Your task to perform on an android device: turn notification dots off Image 0: 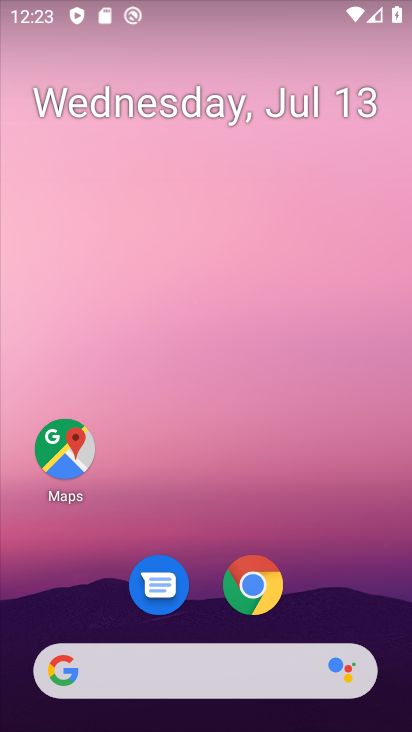
Step 0: drag from (316, 540) to (321, 62)
Your task to perform on an android device: turn notification dots off Image 1: 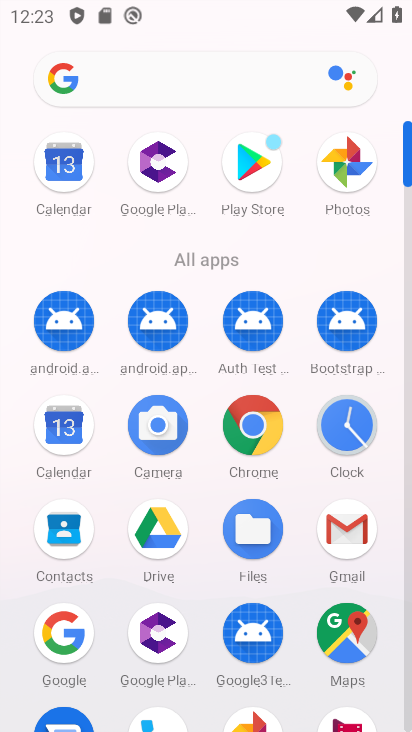
Step 1: drag from (197, 590) to (223, 124)
Your task to perform on an android device: turn notification dots off Image 2: 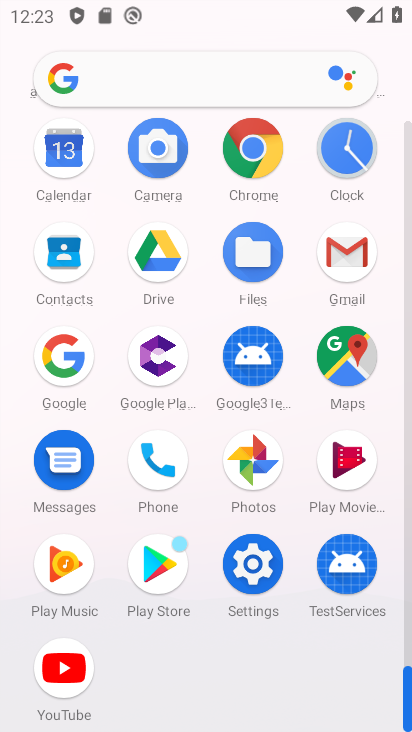
Step 2: click (250, 577)
Your task to perform on an android device: turn notification dots off Image 3: 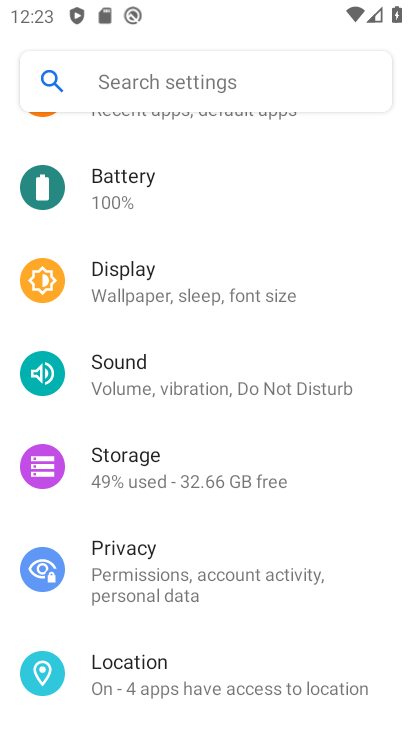
Step 3: drag from (242, 638) to (231, 291)
Your task to perform on an android device: turn notification dots off Image 4: 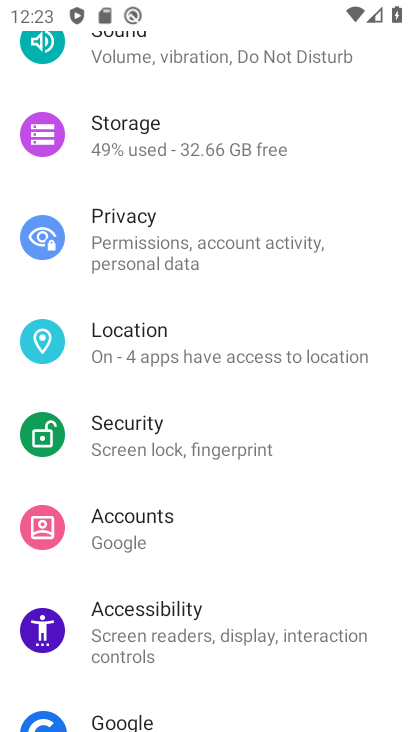
Step 4: drag from (236, 324) to (231, 715)
Your task to perform on an android device: turn notification dots off Image 5: 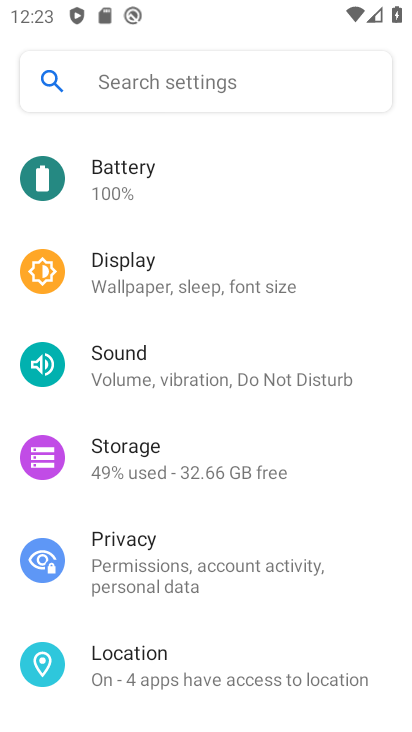
Step 5: drag from (224, 221) to (232, 613)
Your task to perform on an android device: turn notification dots off Image 6: 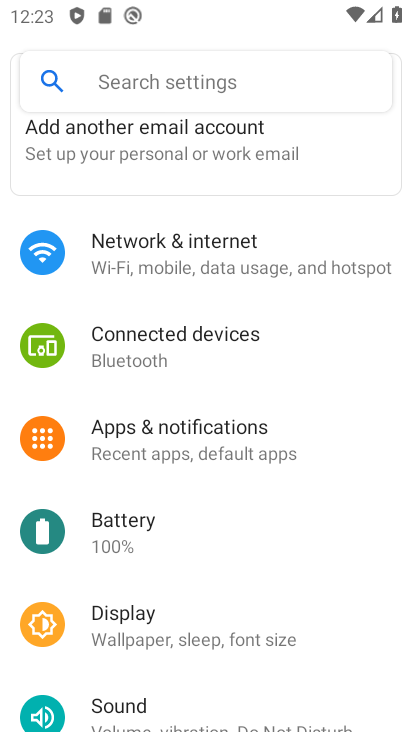
Step 6: click (236, 437)
Your task to perform on an android device: turn notification dots off Image 7: 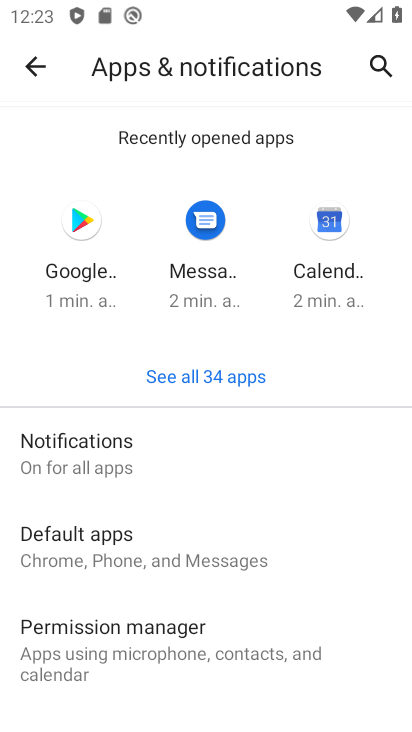
Step 7: click (103, 446)
Your task to perform on an android device: turn notification dots off Image 8: 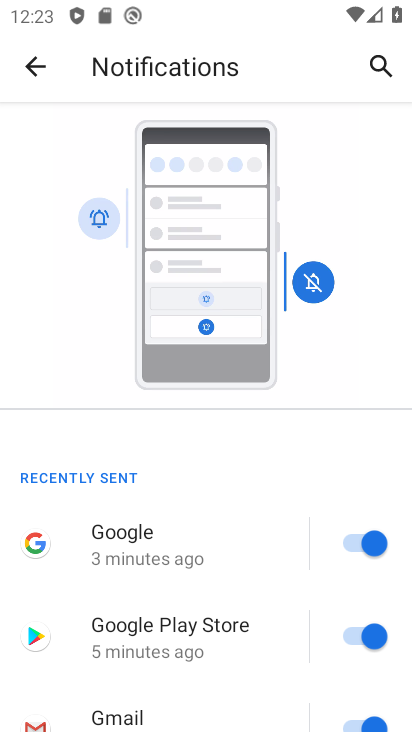
Step 8: drag from (209, 672) to (236, 170)
Your task to perform on an android device: turn notification dots off Image 9: 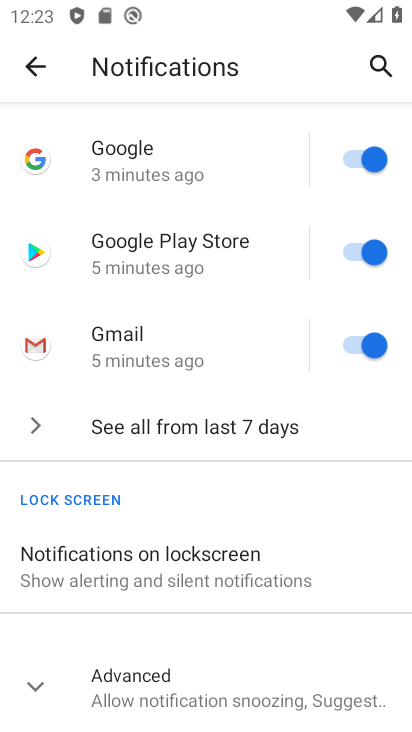
Step 9: click (37, 685)
Your task to perform on an android device: turn notification dots off Image 10: 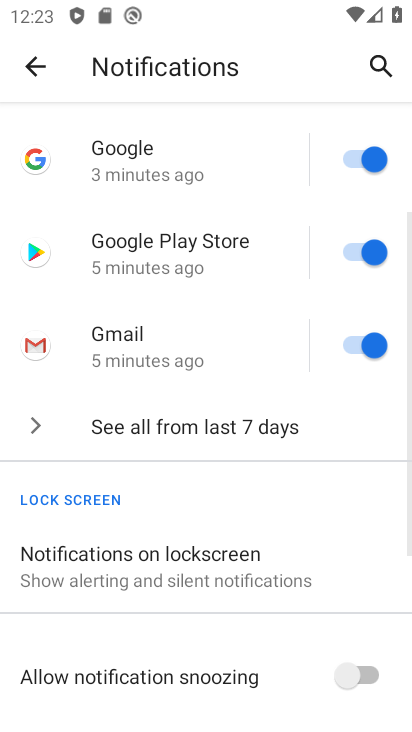
Step 10: drag from (272, 532) to (298, 66)
Your task to perform on an android device: turn notification dots off Image 11: 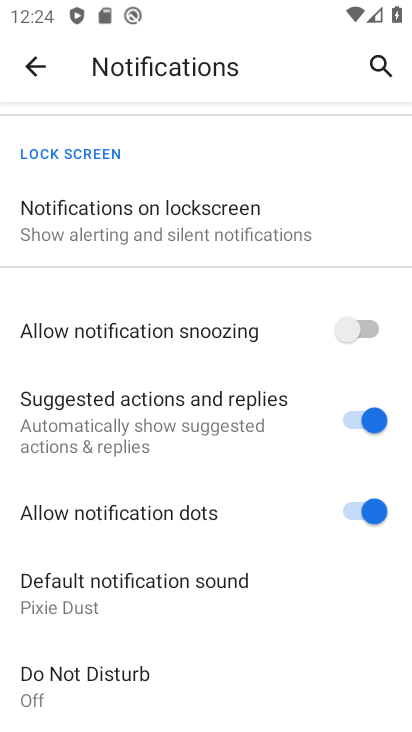
Step 11: click (354, 503)
Your task to perform on an android device: turn notification dots off Image 12: 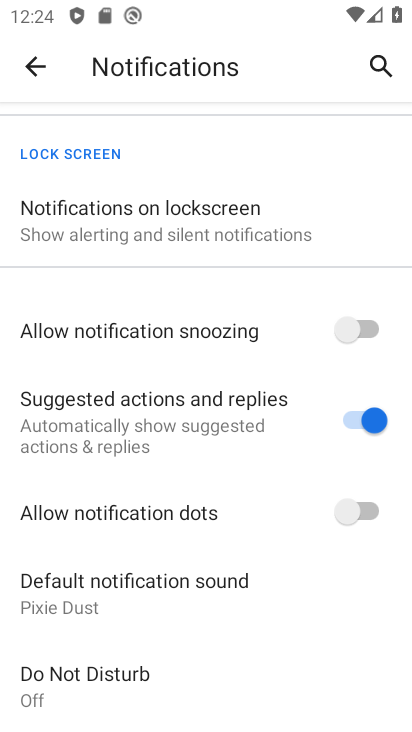
Step 12: task complete